Your task to perform on an android device: toggle airplane mode Image 0: 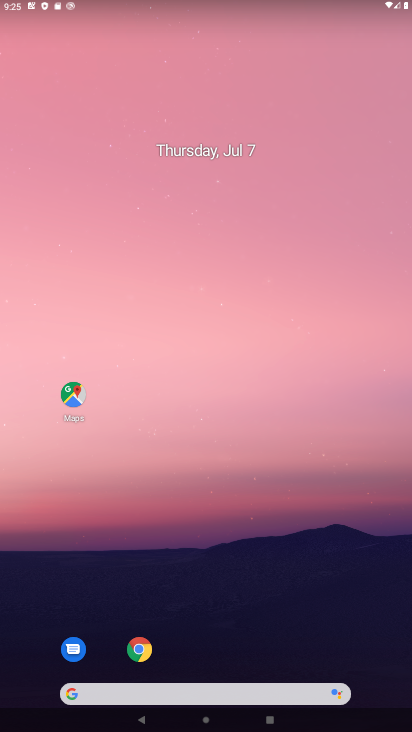
Step 0: drag from (222, 727) to (258, 111)
Your task to perform on an android device: toggle airplane mode Image 1: 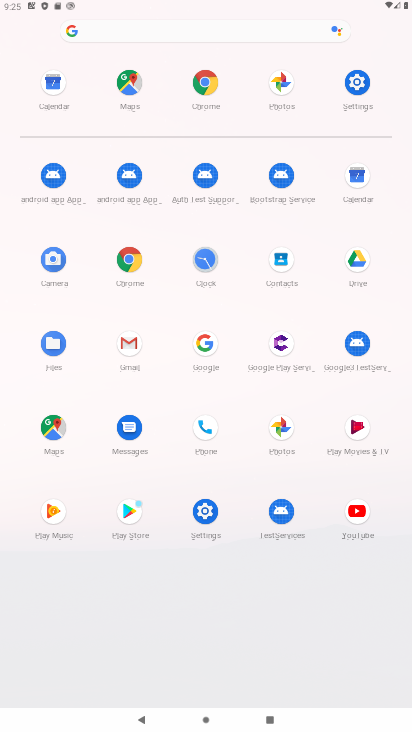
Step 1: click (360, 84)
Your task to perform on an android device: toggle airplane mode Image 2: 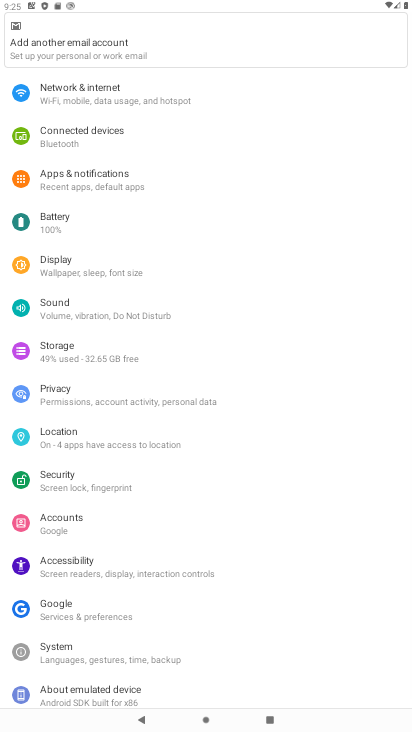
Step 2: drag from (125, 88) to (155, 447)
Your task to perform on an android device: toggle airplane mode Image 3: 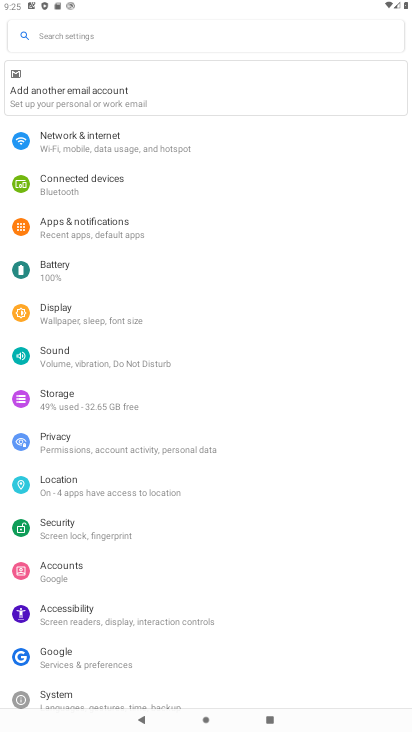
Step 3: click (104, 143)
Your task to perform on an android device: toggle airplane mode Image 4: 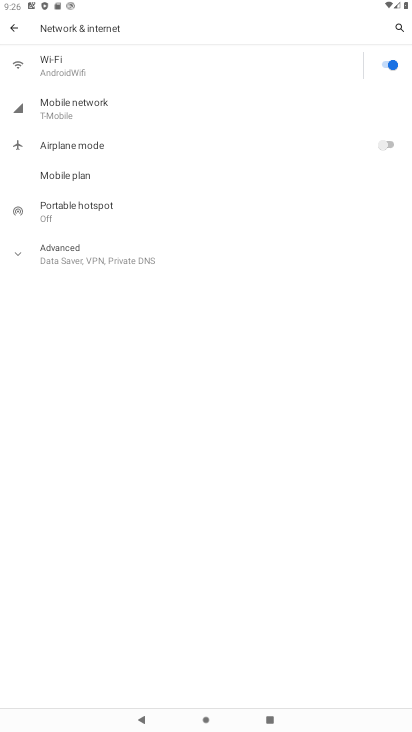
Step 4: click (383, 146)
Your task to perform on an android device: toggle airplane mode Image 5: 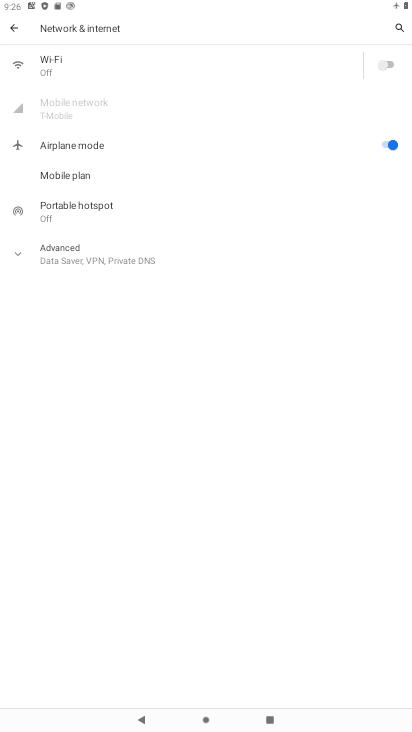
Step 5: task complete